Your task to perform on an android device: Open my contact list Image 0: 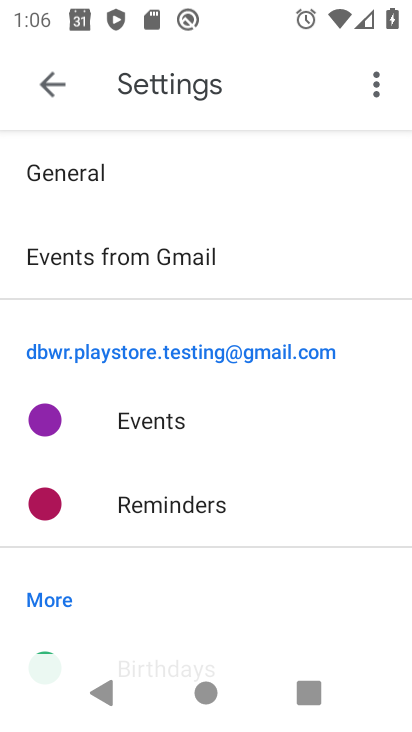
Step 0: press back button
Your task to perform on an android device: Open my contact list Image 1: 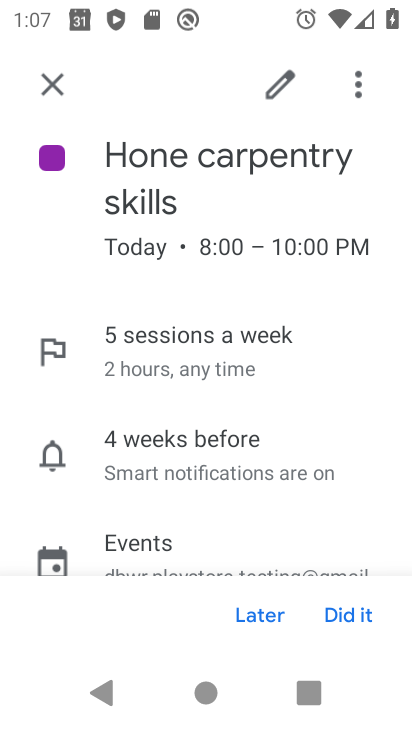
Step 1: press back button
Your task to perform on an android device: Open my contact list Image 2: 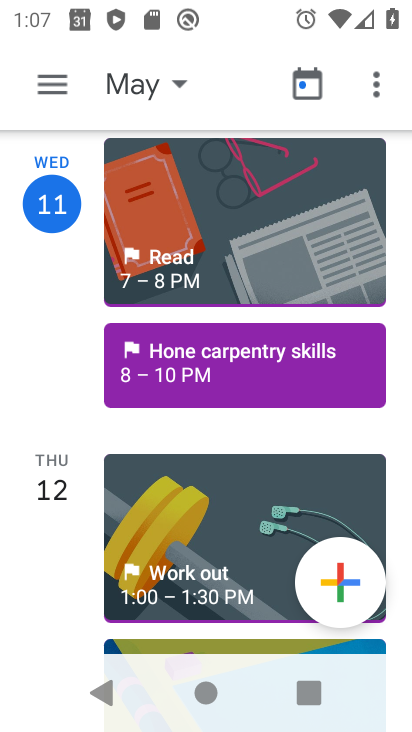
Step 2: press back button
Your task to perform on an android device: Open my contact list Image 3: 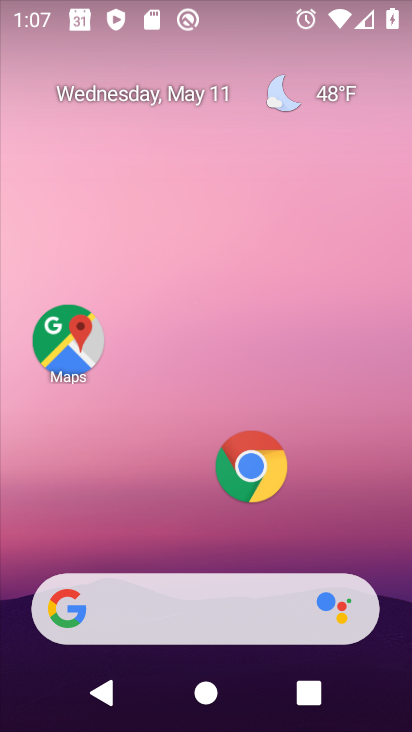
Step 3: drag from (98, 540) to (232, 96)
Your task to perform on an android device: Open my contact list Image 4: 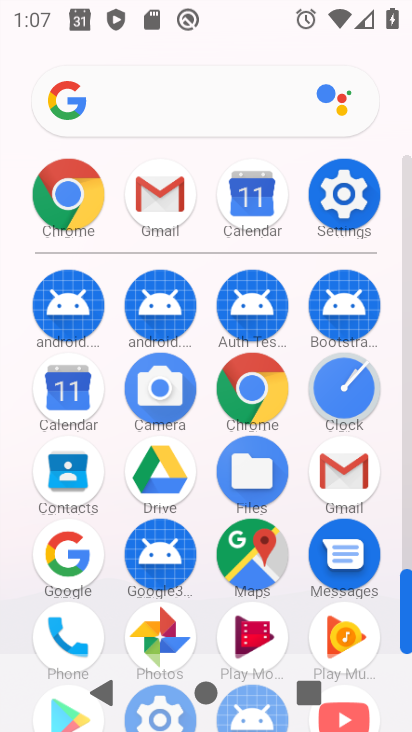
Step 4: click (73, 476)
Your task to perform on an android device: Open my contact list Image 5: 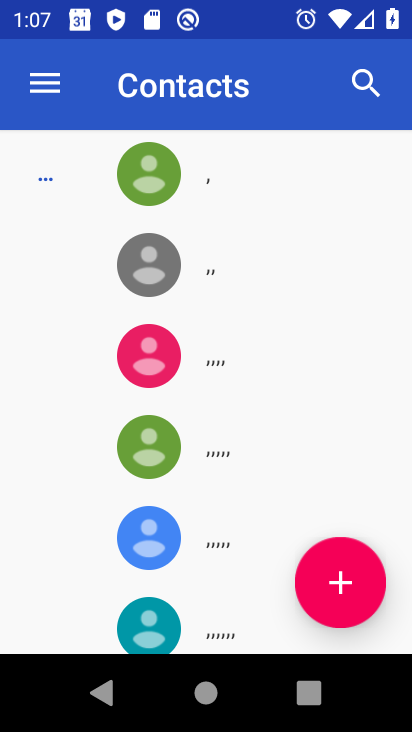
Step 5: task complete